Your task to perform on an android device: Turn off the flashlight Image 0: 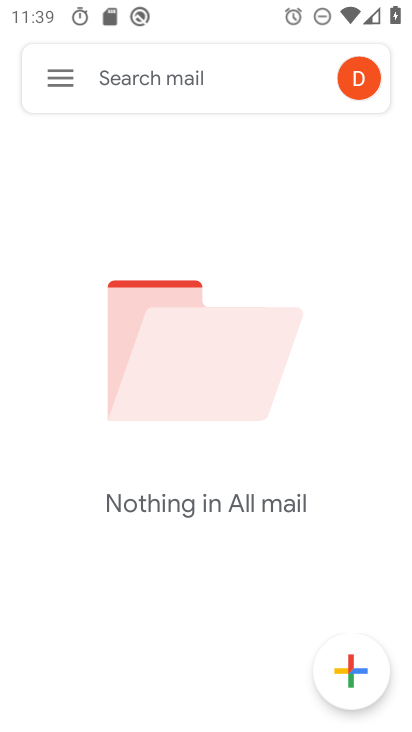
Step 0: press home button
Your task to perform on an android device: Turn off the flashlight Image 1: 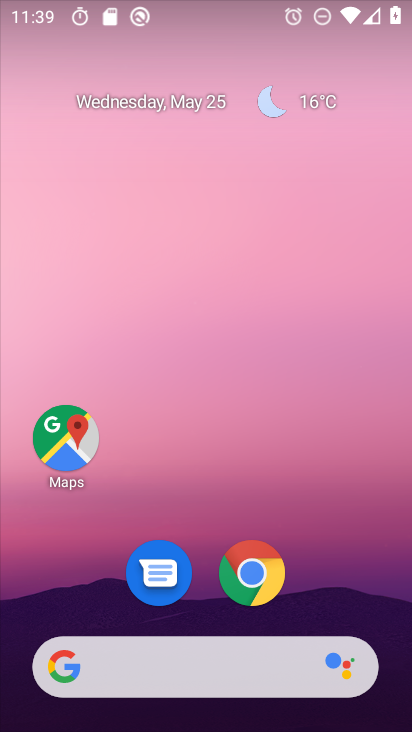
Step 1: task complete